Your task to perform on an android device: toggle pop-ups in chrome Image 0: 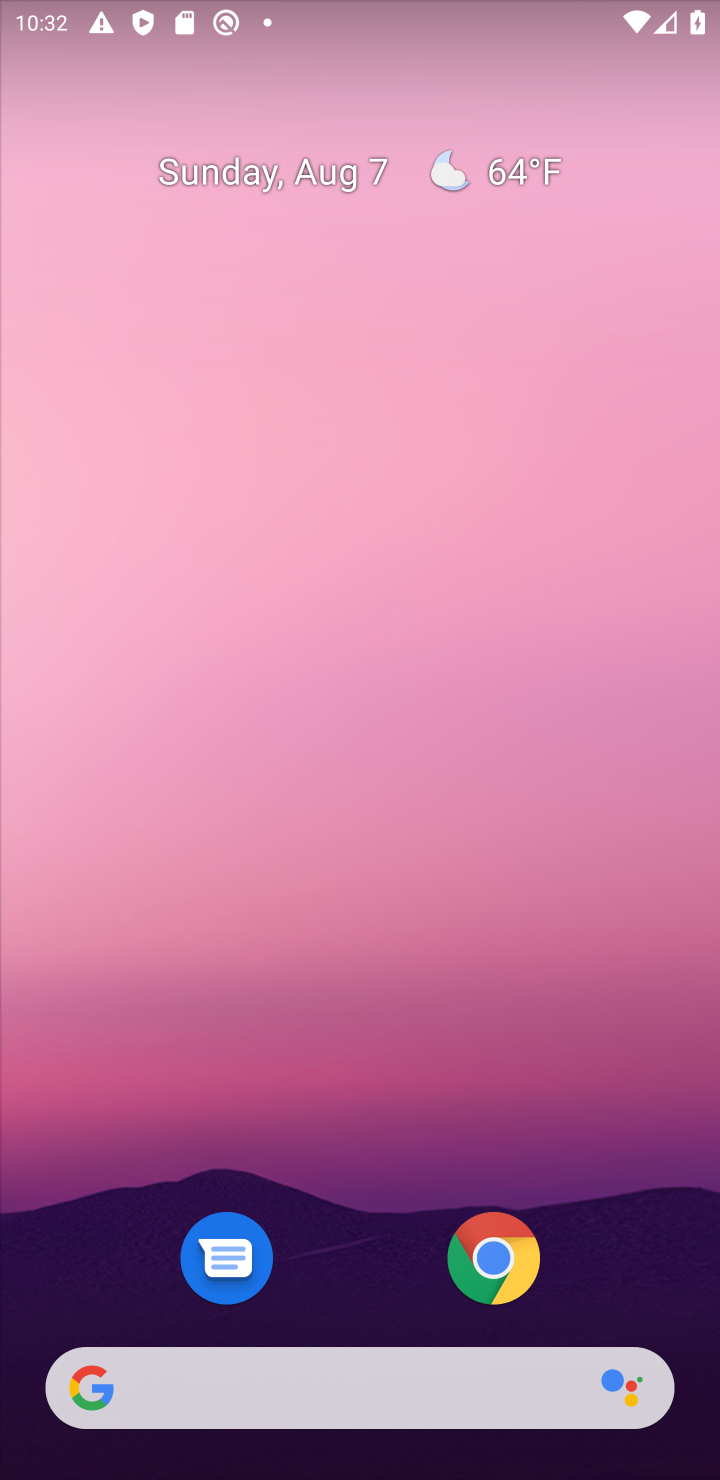
Step 0: drag from (351, 1230) to (443, 122)
Your task to perform on an android device: toggle pop-ups in chrome Image 1: 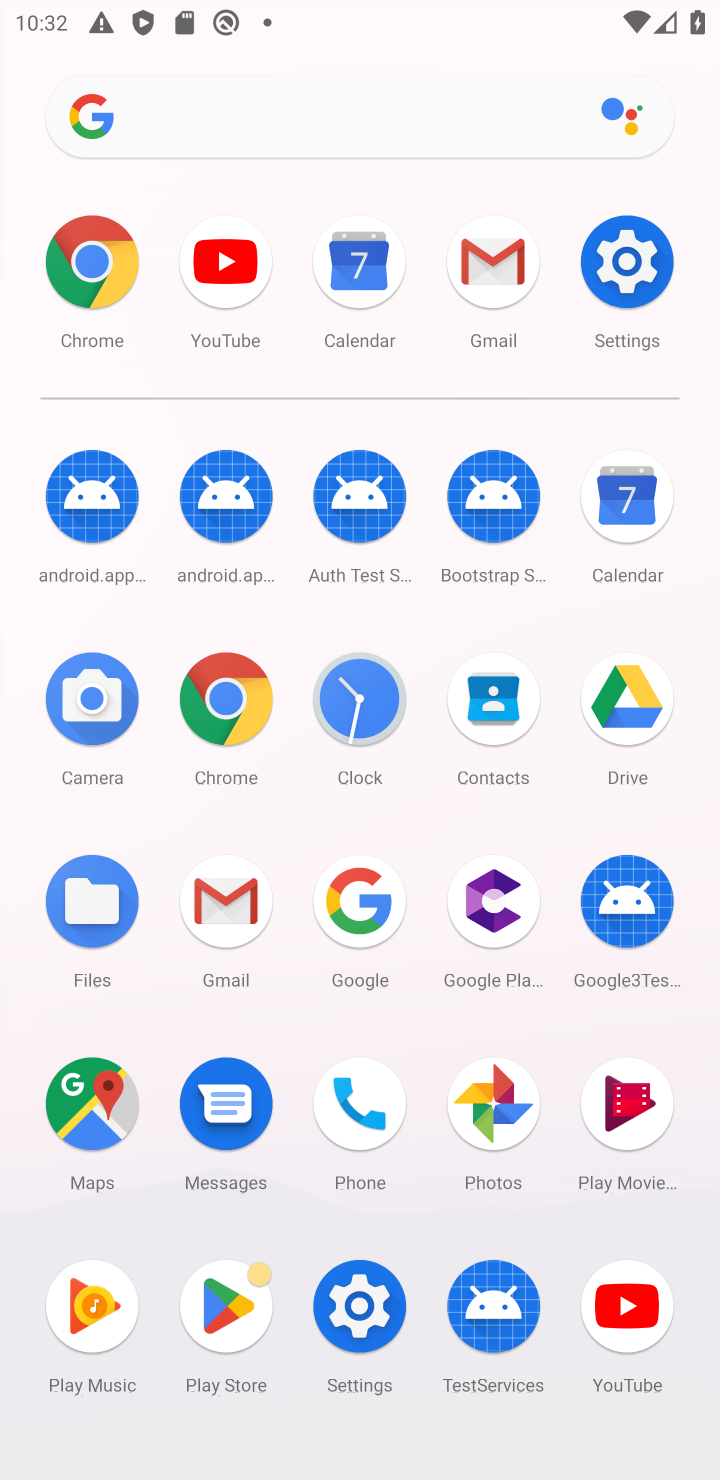
Step 1: click (97, 304)
Your task to perform on an android device: toggle pop-ups in chrome Image 2: 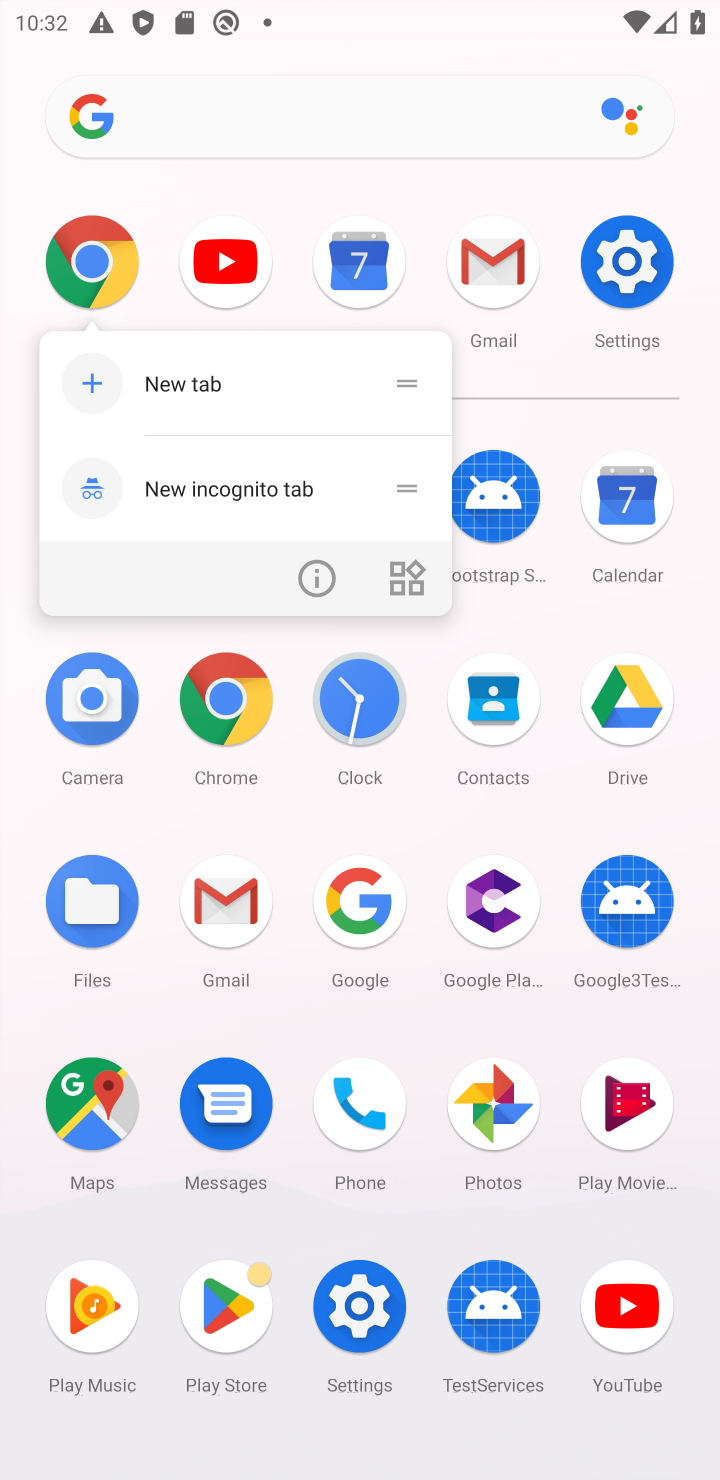
Step 2: click (97, 304)
Your task to perform on an android device: toggle pop-ups in chrome Image 3: 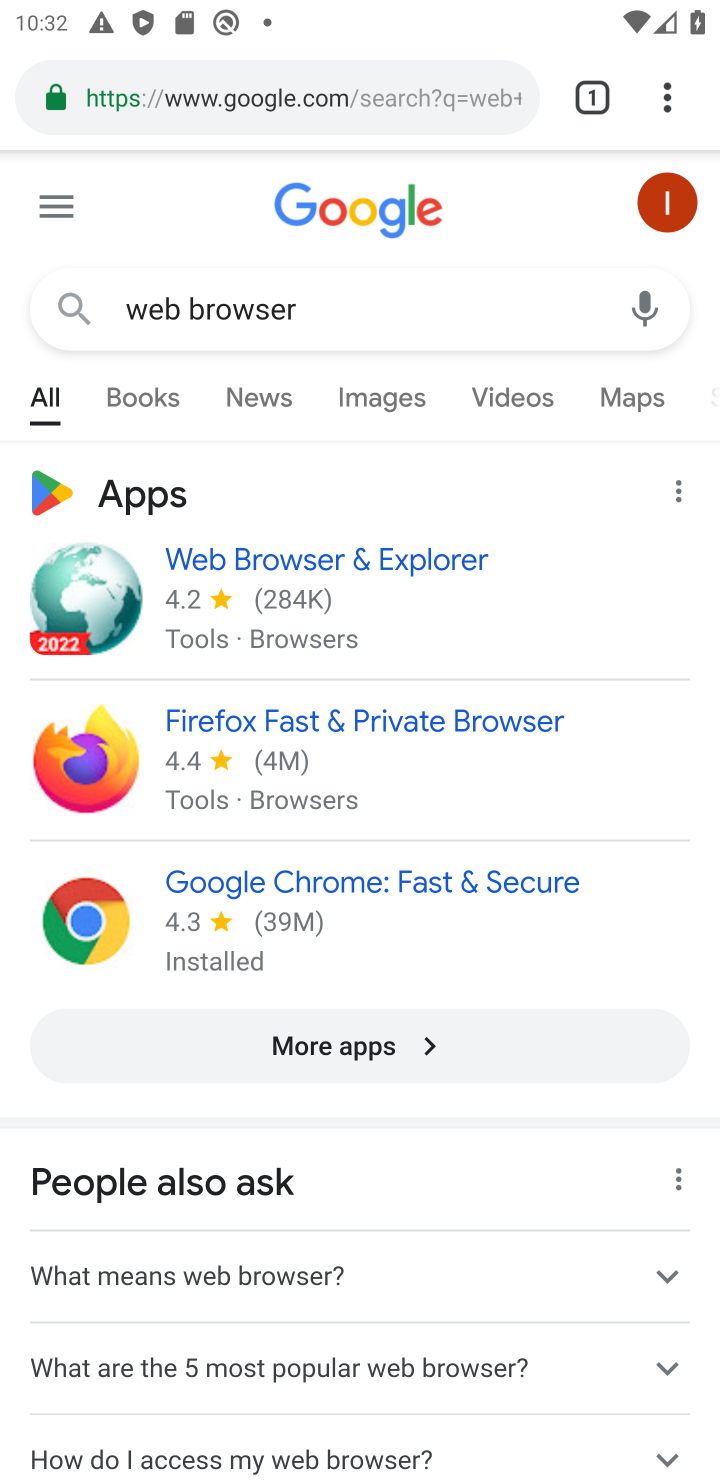
Step 3: drag from (661, 90) to (385, 773)
Your task to perform on an android device: toggle pop-ups in chrome Image 4: 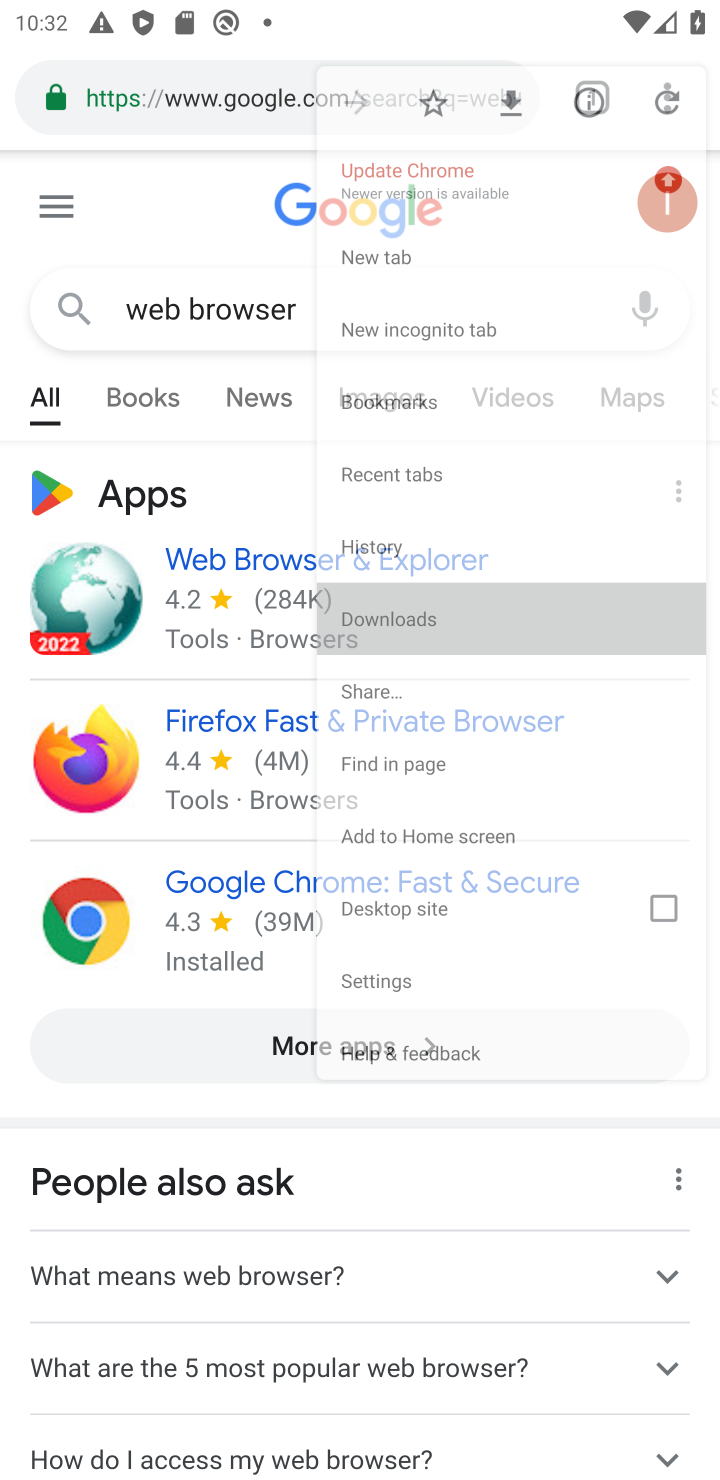
Step 4: click (385, 773)
Your task to perform on an android device: toggle pop-ups in chrome Image 5: 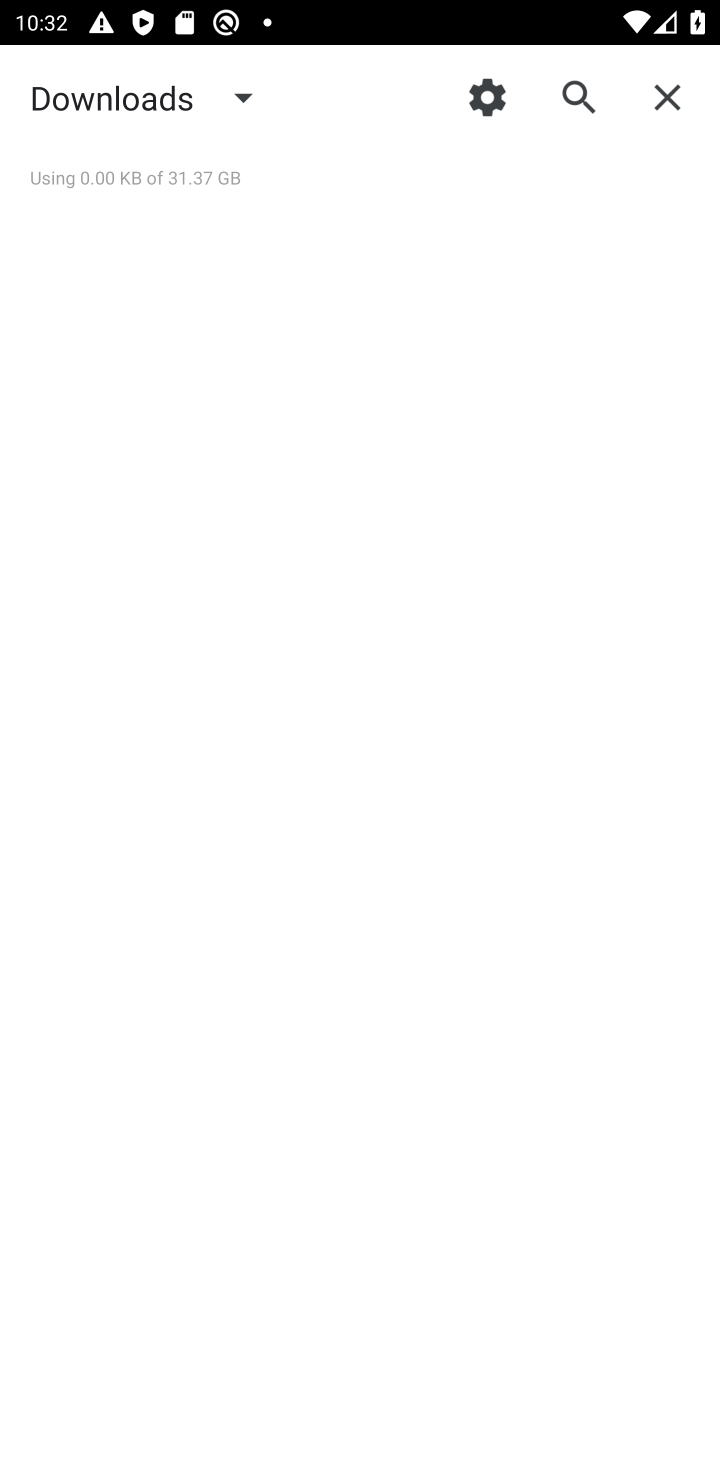
Step 5: press back button
Your task to perform on an android device: toggle pop-ups in chrome Image 6: 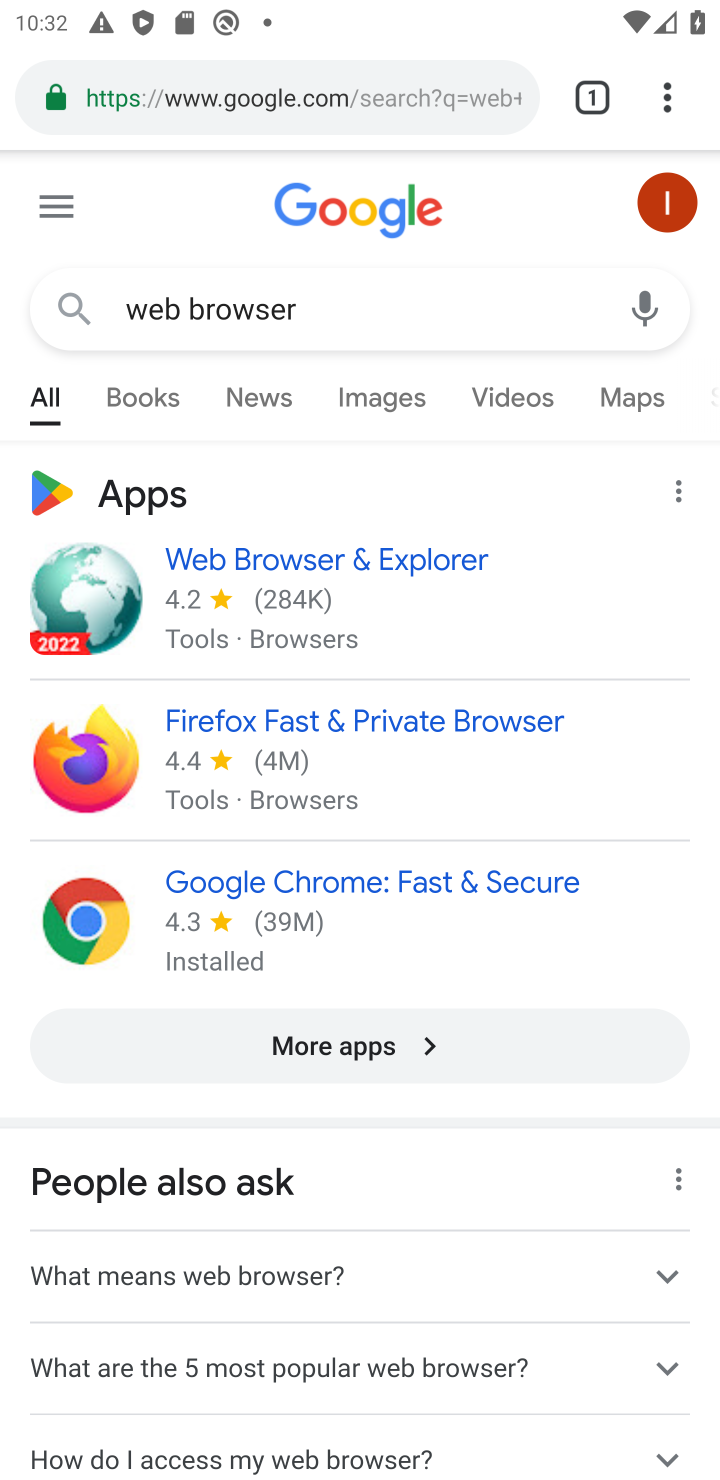
Step 6: drag from (672, 102) to (271, 1175)
Your task to perform on an android device: toggle pop-ups in chrome Image 7: 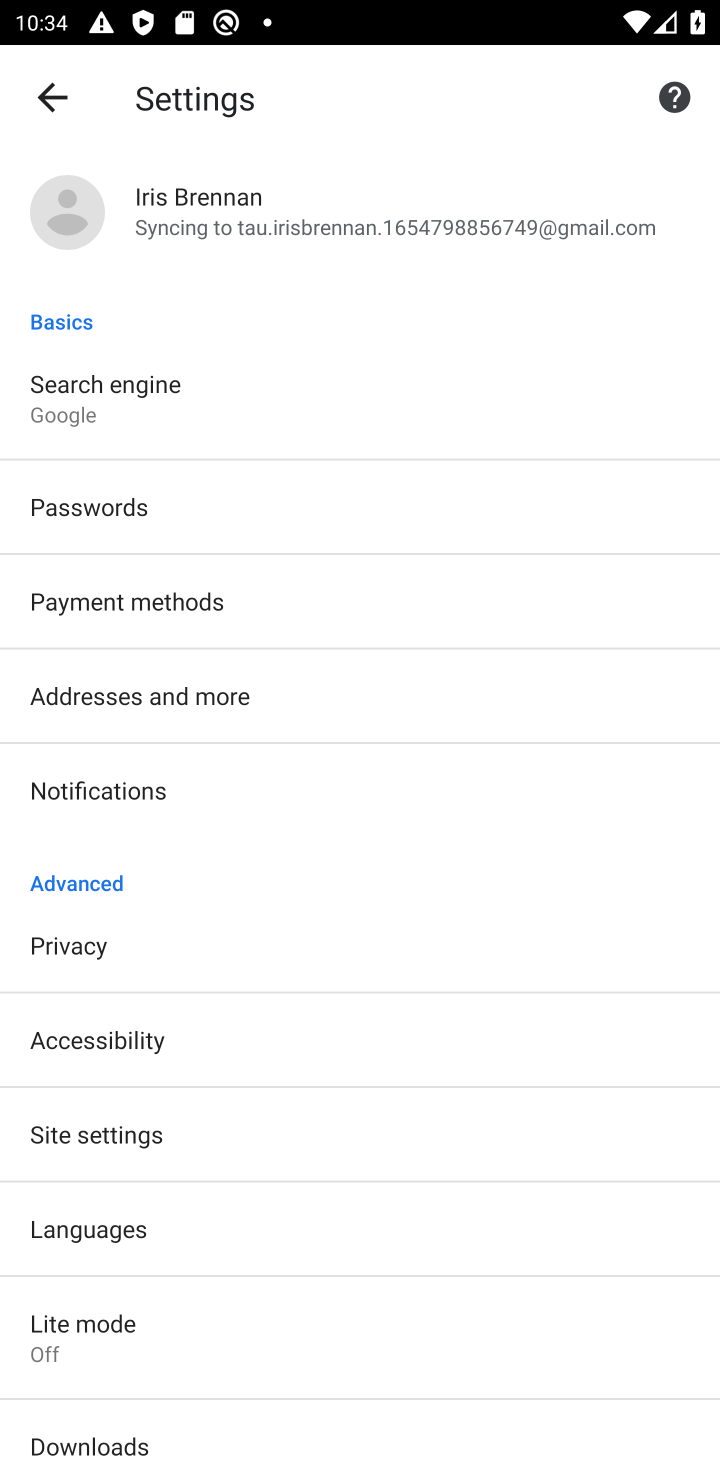
Step 7: click (127, 1136)
Your task to perform on an android device: toggle pop-ups in chrome Image 8: 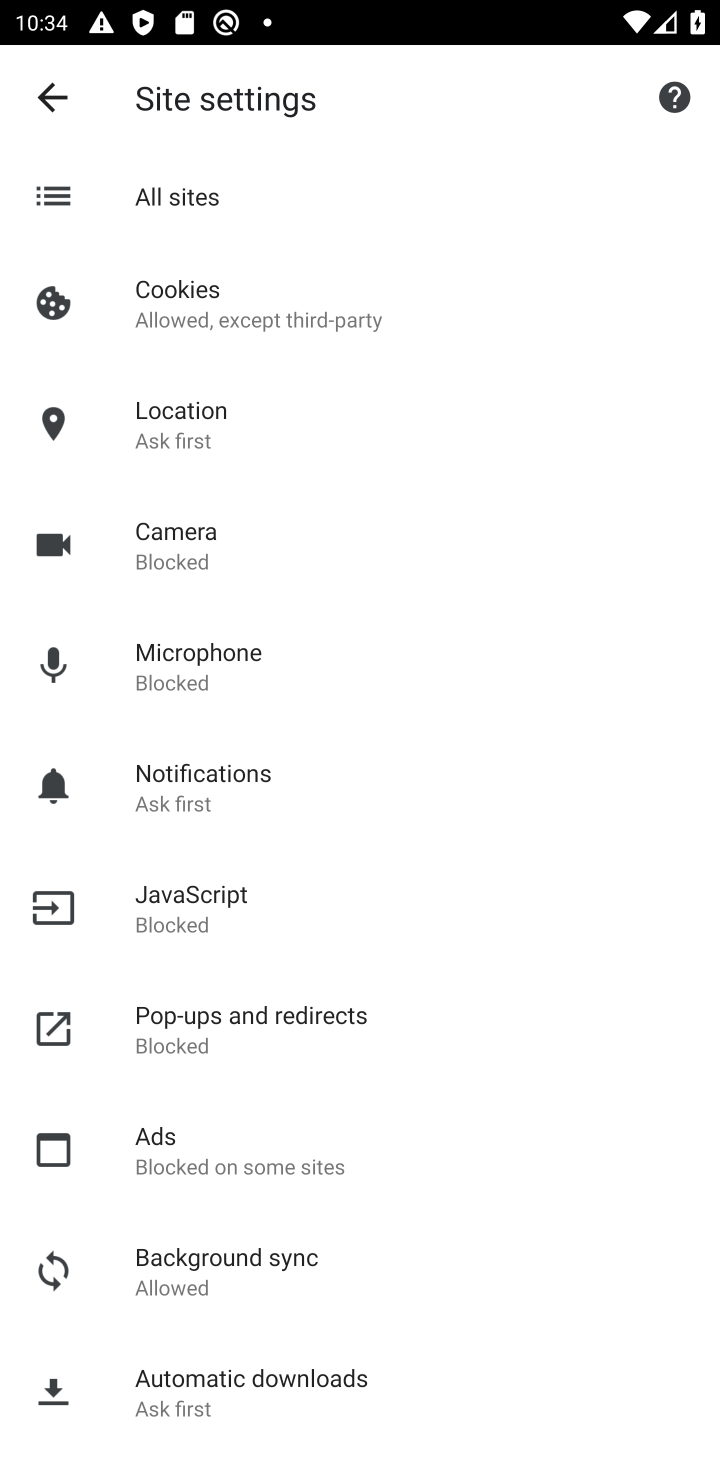
Step 8: click (261, 1021)
Your task to perform on an android device: toggle pop-ups in chrome Image 9: 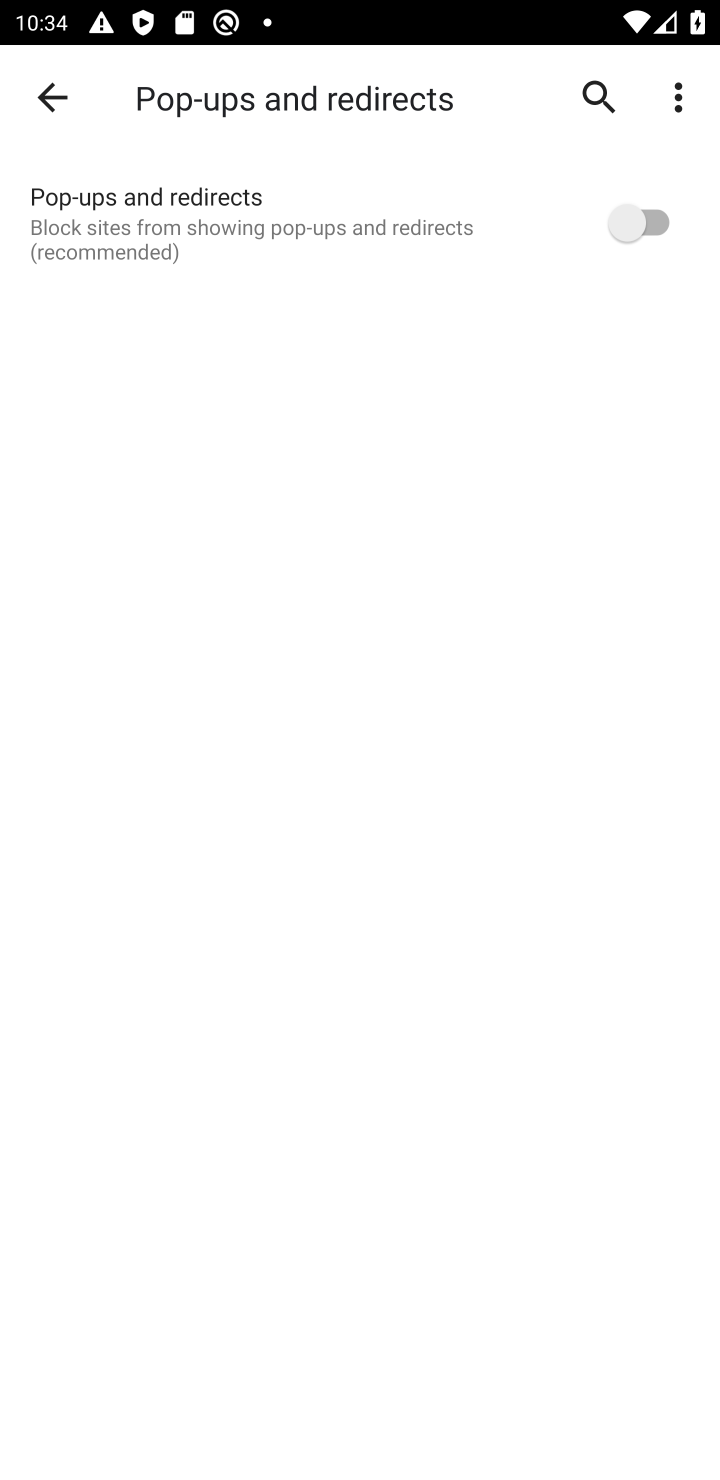
Step 9: click (286, 208)
Your task to perform on an android device: toggle pop-ups in chrome Image 10: 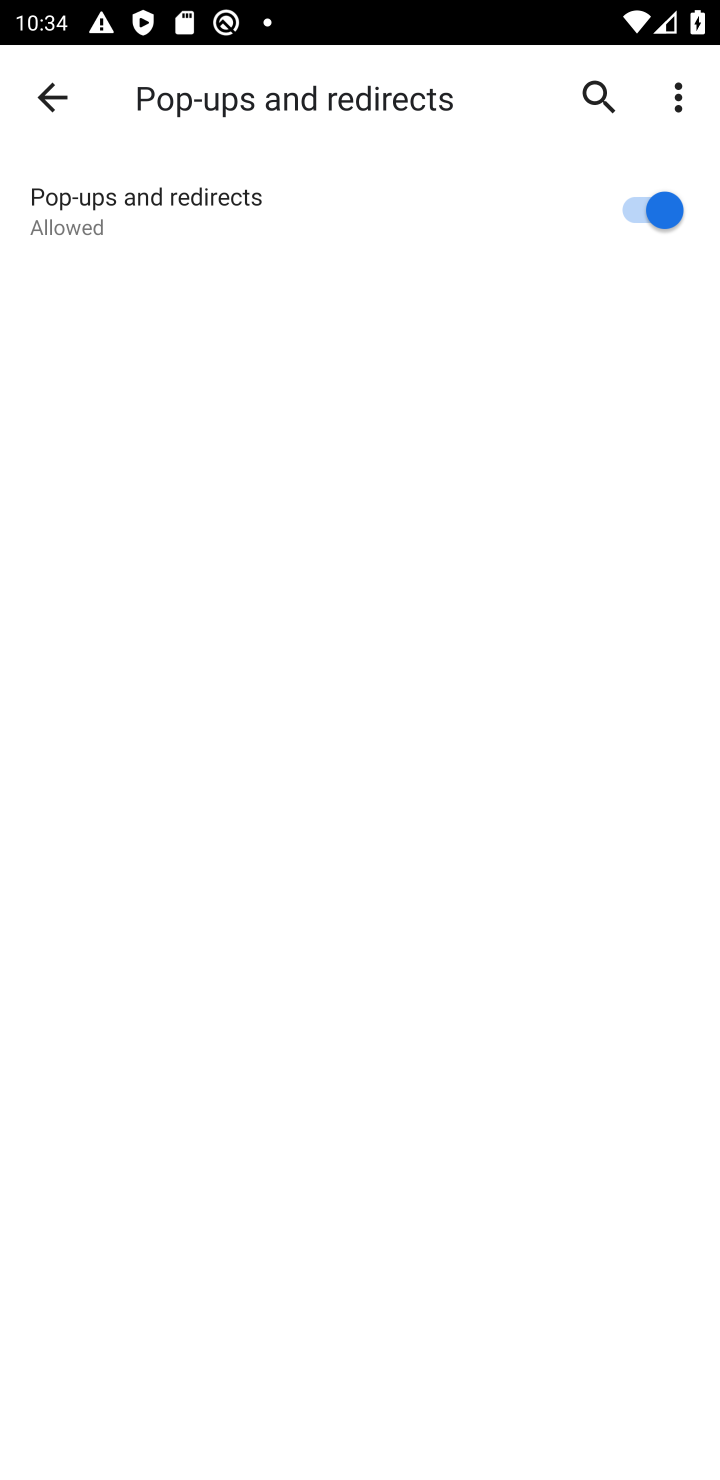
Step 10: task complete